Your task to perform on an android device: What is the news today? Image 0: 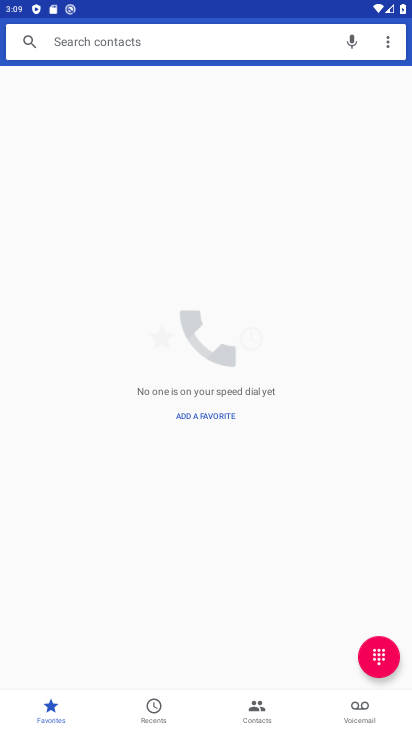
Step 0: press back button
Your task to perform on an android device: What is the news today? Image 1: 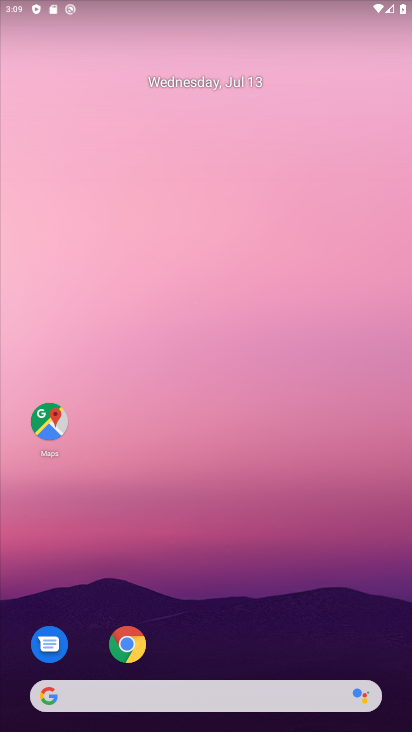
Step 1: click (250, 691)
Your task to perform on an android device: What is the news today? Image 2: 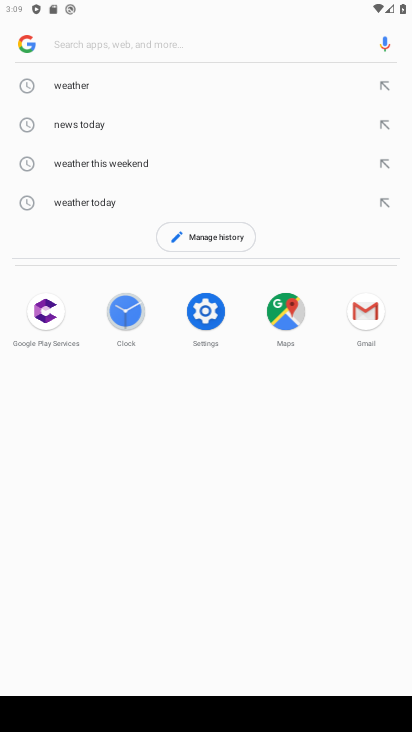
Step 2: click (117, 124)
Your task to perform on an android device: What is the news today? Image 3: 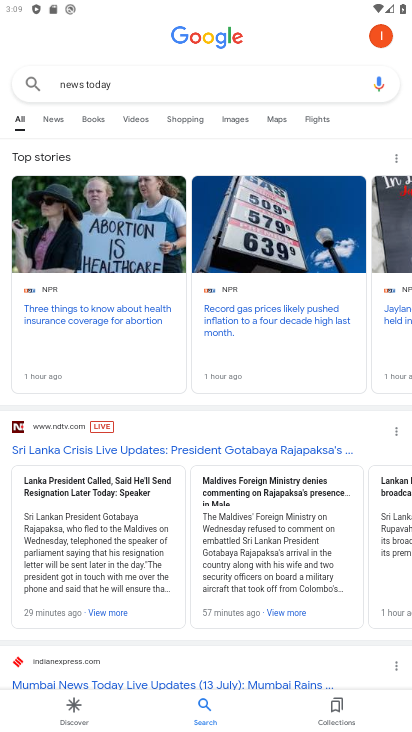
Step 3: task complete